Your task to perform on an android device: toggle priority inbox in the gmail app Image 0: 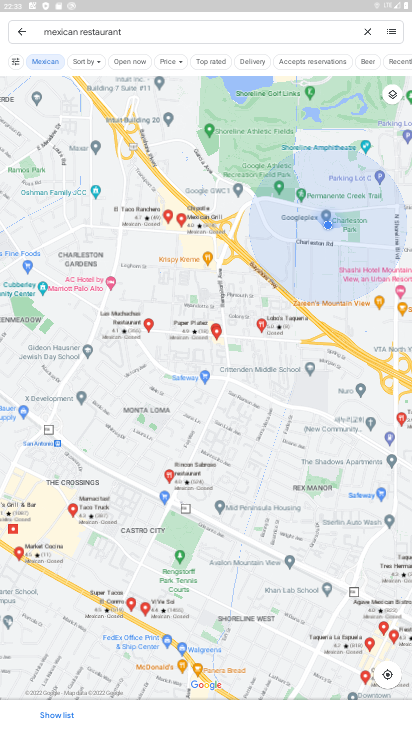
Step 0: drag from (242, 468) to (287, 263)
Your task to perform on an android device: toggle priority inbox in the gmail app Image 1: 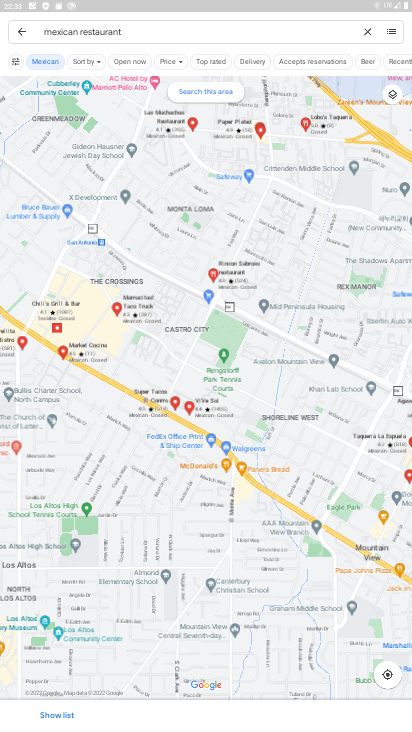
Step 1: press home button
Your task to perform on an android device: toggle priority inbox in the gmail app Image 2: 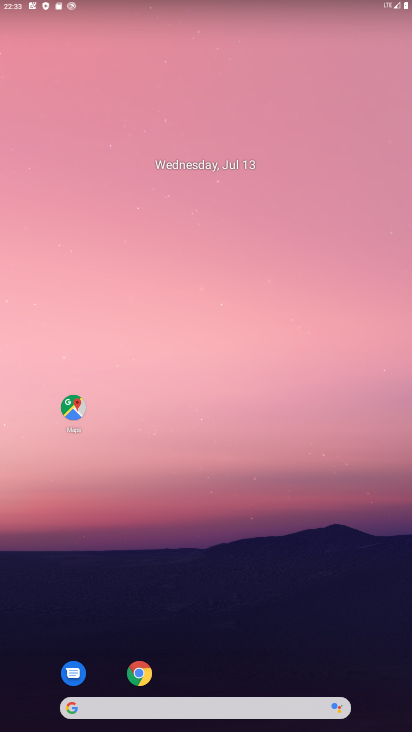
Step 2: drag from (184, 593) to (198, 226)
Your task to perform on an android device: toggle priority inbox in the gmail app Image 3: 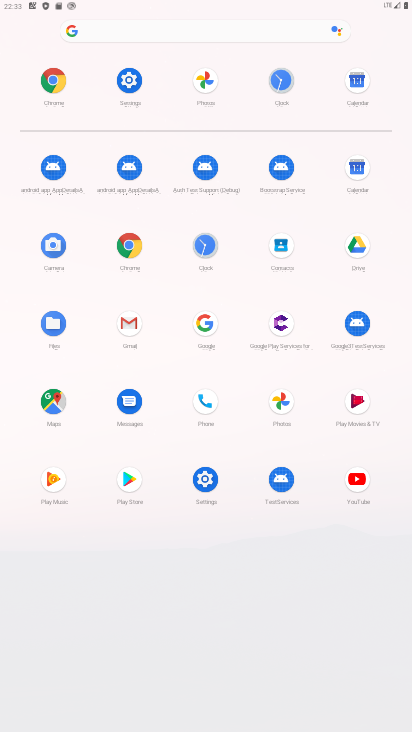
Step 3: click (123, 341)
Your task to perform on an android device: toggle priority inbox in the gmail app Image 4: 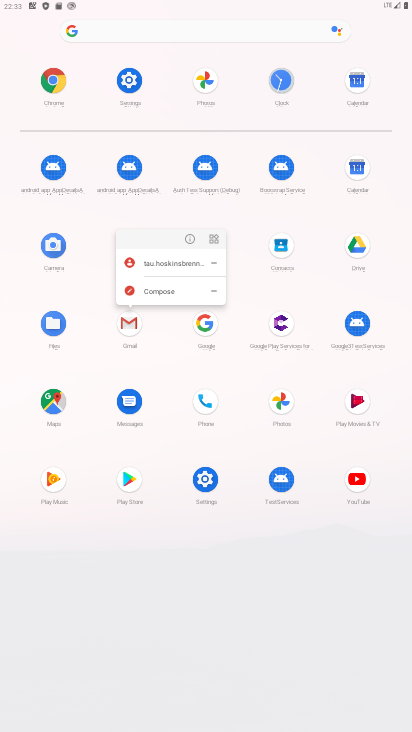
Step 4: click (196, 230)
Your task to perform on an android device: toggle priority inbox in the gmail app Image 5: 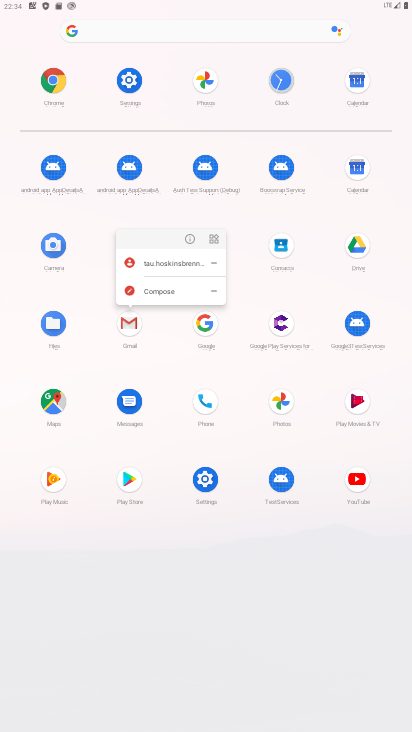
Step 5: click (190, 239)
Your task to perform on an android device: toggle priority inbox in the gmail app Image 6: 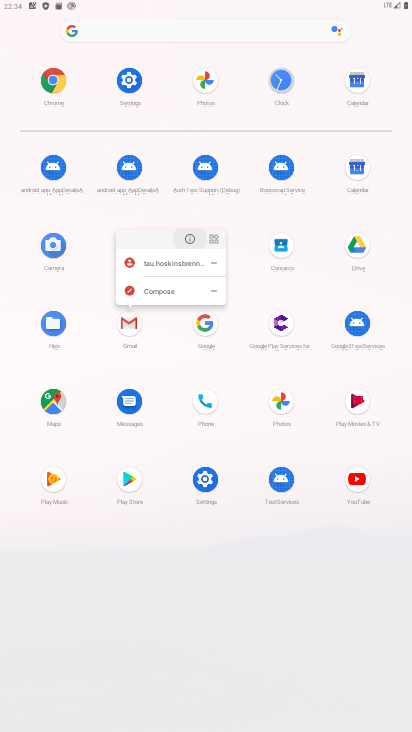
Step 6: click (190, 239)
Your task to perform on an android device: toggle priority inbox in the gmail app Image 7: 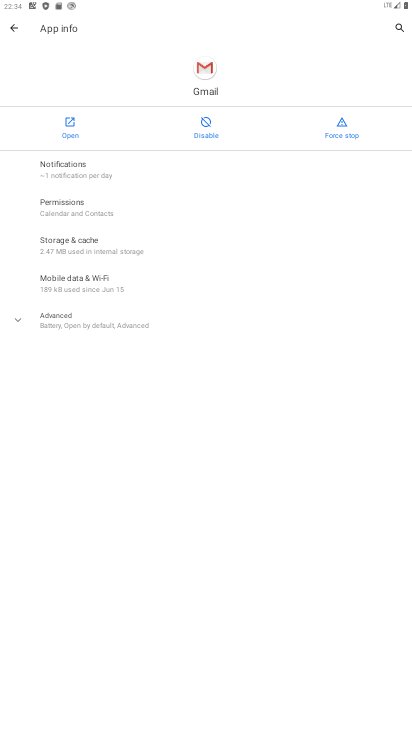
Step 7: click (68, 130)
Your task to perform on an android device: toggle priority inbox in the gmail app Image 8: 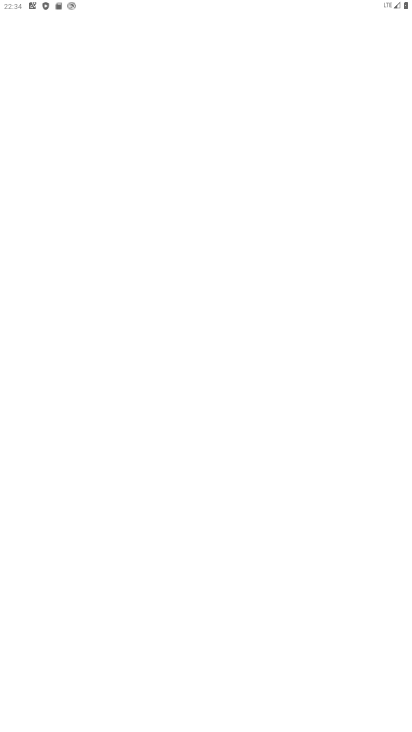
Step 8: drag from (207, 398) to (289, 56)
Your task to perform on an android device: toggle priority inbox in the gmail app Image 9: 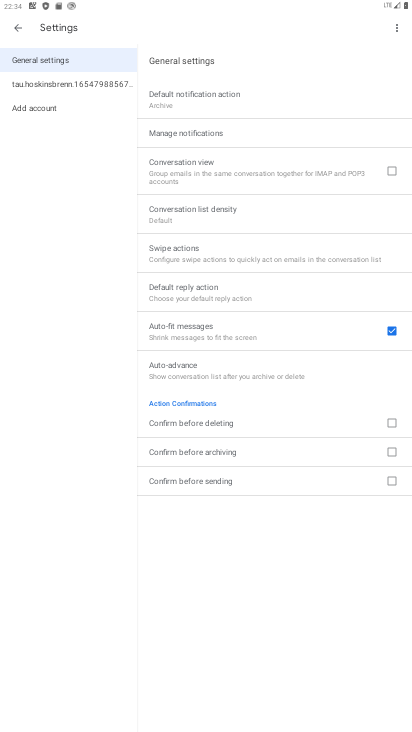
Step 9: click (67, 81)
Your task to perform on an android device: toggle priority inbox in the gmail app Image 10: 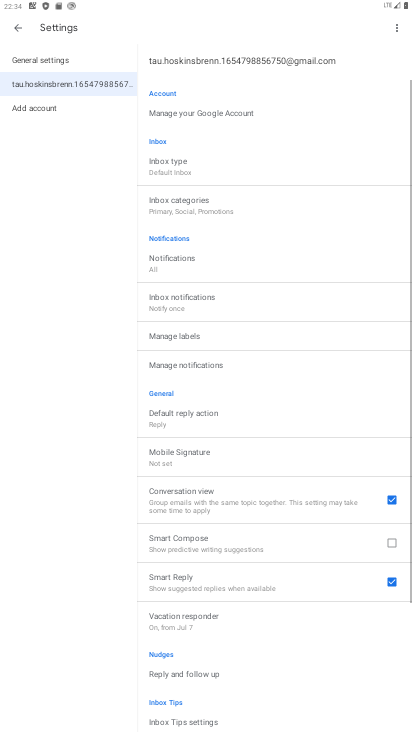
Step 10: click (195, 161)
Your task to perform on an android device: toggle priority inbox in the gmail app Image 11: 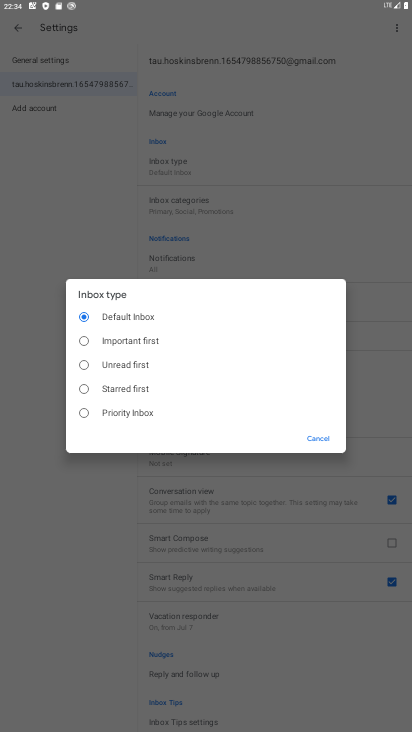
Step 11: click (93, 409)
Your task to perform on an android device: toggle priority inbox in the gmail app Image 12: 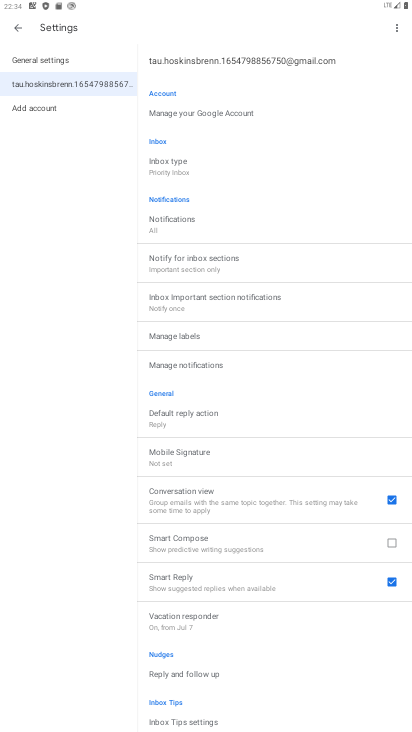
Step 12: task complete